Your task to perform on an android device: Open Google Chrome Image 0: 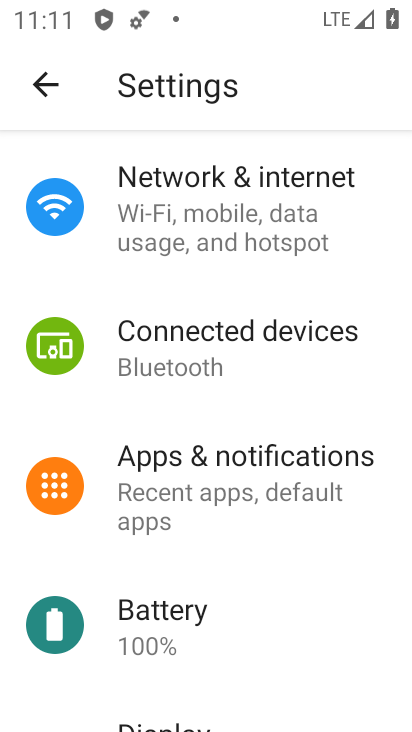
Step 0: press home button
Your task to perform on an android device: Open Google Chrome Image 1: 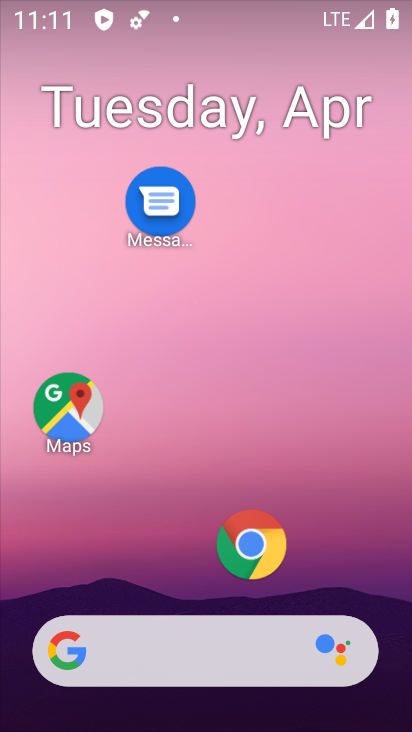
Step 1: click (238, 542)
Your task to perform on an android device: Open Google Chrome Image 2: 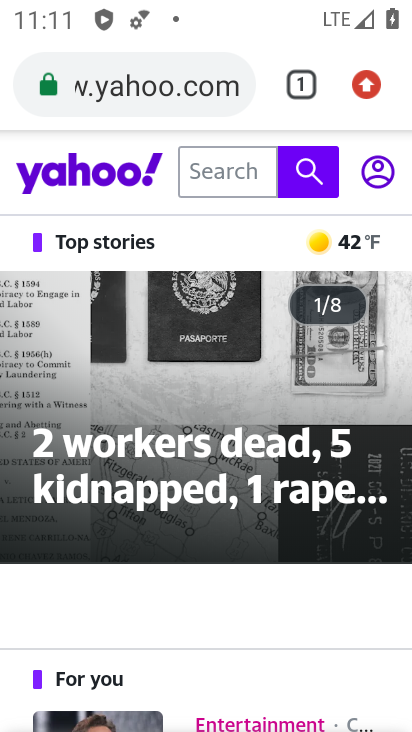
Step 2: task complete